Your task to perform on an android device: What's the news in Sri Lanka? Image 0: 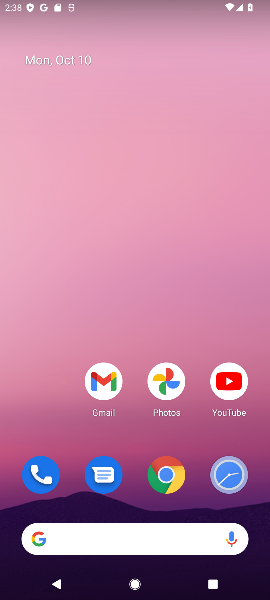
Step 0: drag from (151, 544) to (218, 172)
Your task to perform on an android device: What's the news in Sri Lanka? Image 1: 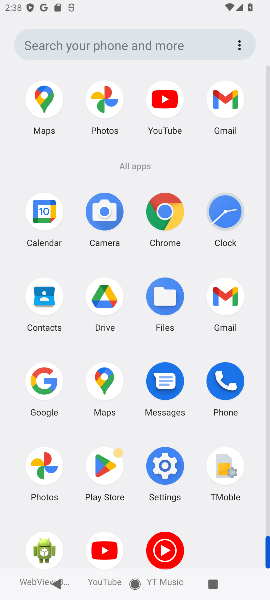
Step 1: click (39, 412)
Your task to perform on an android device: What's the news in Sri Lanka? Image 2: 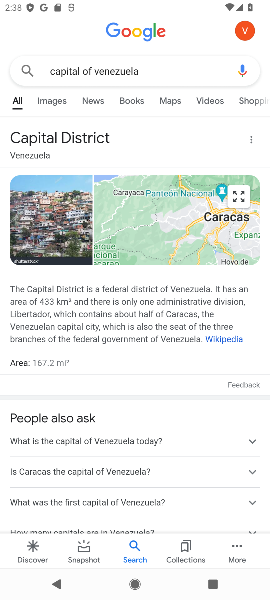
Step 2: click (200, 74)
Your task to perform on an android device: What's the news in Sri Lanka? Image 3: 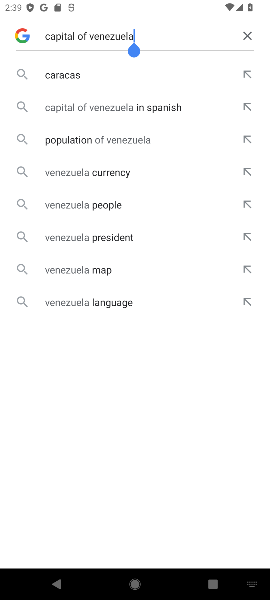
Step 3: click (252, 37)
Your task to perform on an android device: What's the news in Sri Lanka? Image 4: 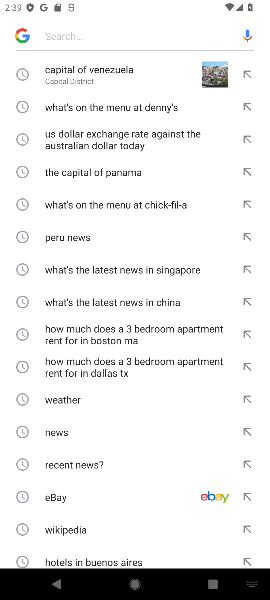
Step 4: type "news in srilanka"
Your task to perform on an android device: What's the news in Sri Lanka? Image 5: 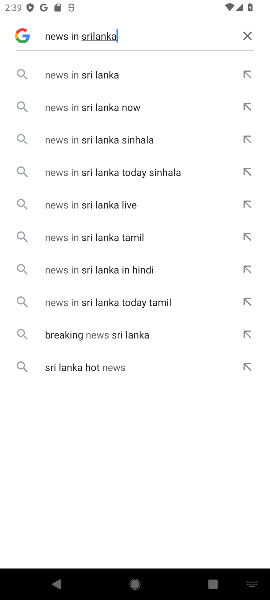
Step 5: click (116, 79)
Your task to perform on an android device: What's the news in Sri Lanka? Image 6: 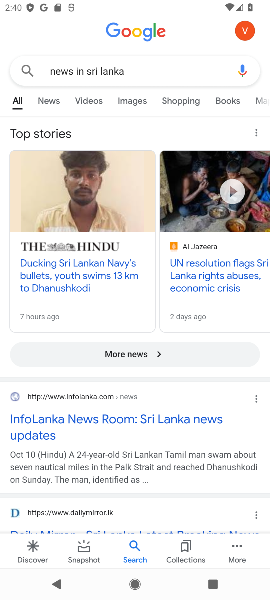
Step 6: click (52, 106)
Your task to perform on an android device: What's the news in Sri Lanka? Image 7: 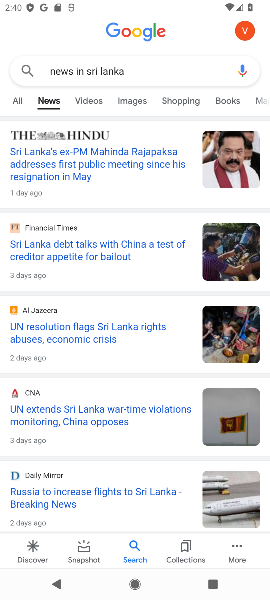
Step 7: task complete